Your task to perform on an android device: What's on my calendar today? Image 0: 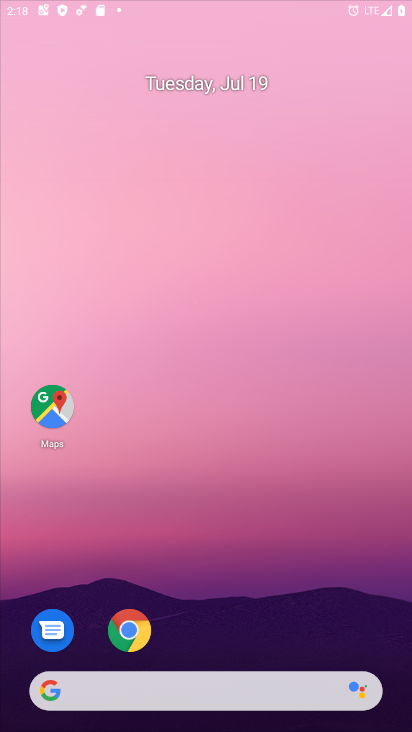
Step 0: press home button
Your task to perform on an android device: What's on my calendar today? Image 1: 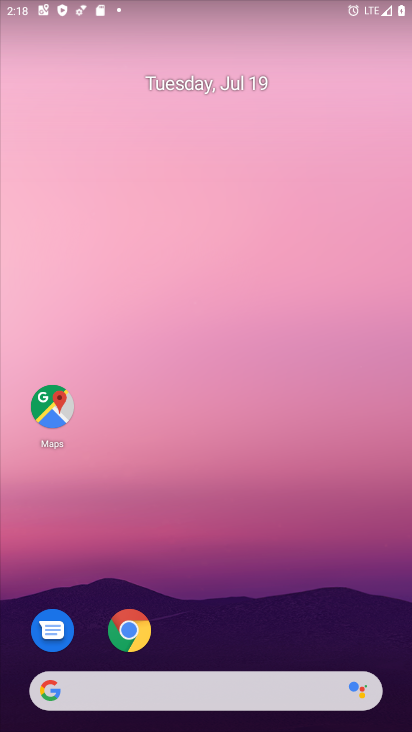
Step 1: drag from (251, 651) to (261, 30)
Your task to perform on an android device: What's on my calendar today? Image 2: 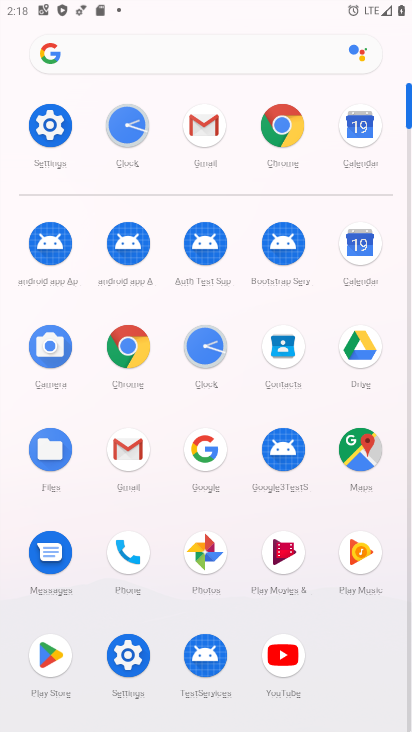
Step 2: click (357, 242)
Your task to perform on an android device: What's on my calendar today? Image 3: 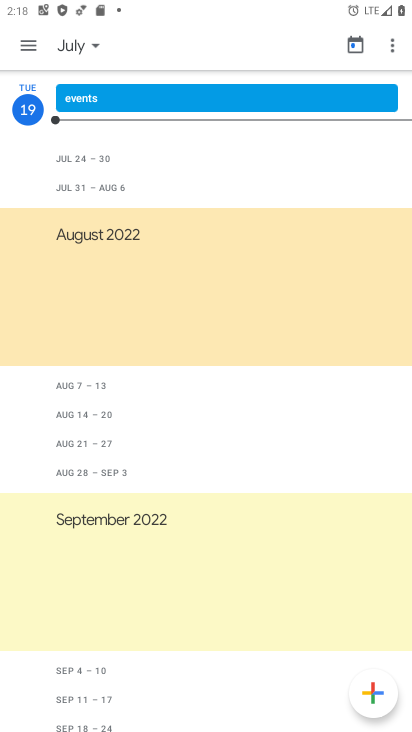
Step 3: click (27, 108)
Your task to perform on an android device: What's on my calendar today? Image 4: 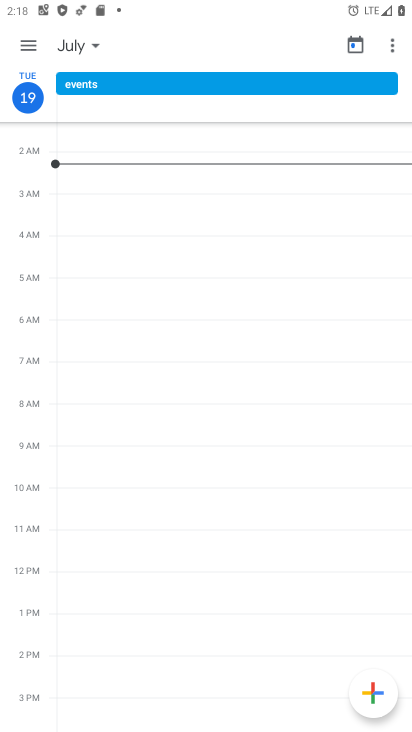
Step 4: task complete